Your task to perform on an android device: star an email in the gmail app Image 0: 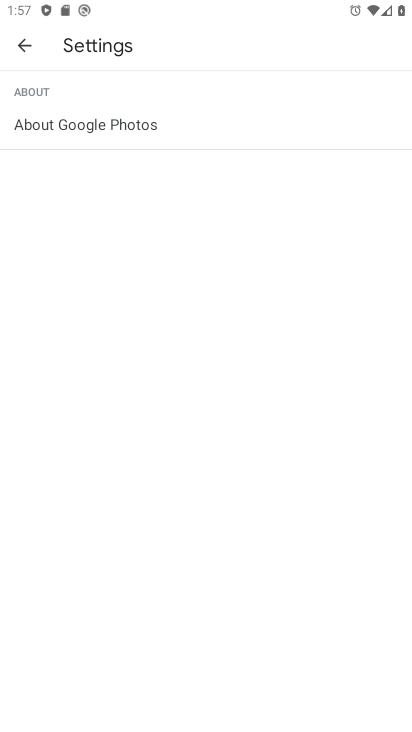
Step 0: press home button
Your task to perform on an android device: star an email in the gmail app Image 1: 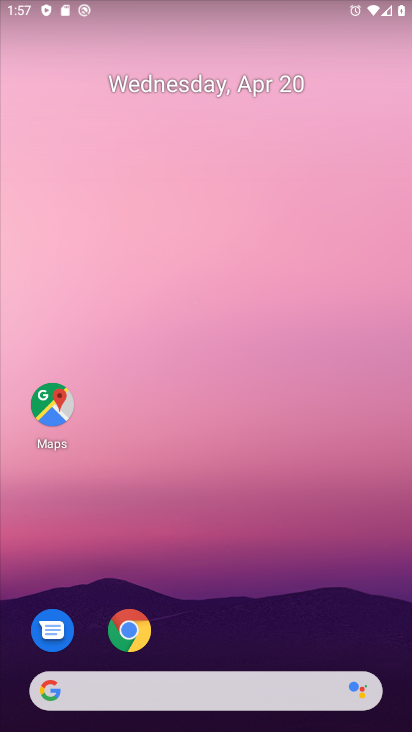
Step 1: drag from (244, 634) to (61, 126)
Your task to perform on an android device: star an email in the gmail app Image 2: 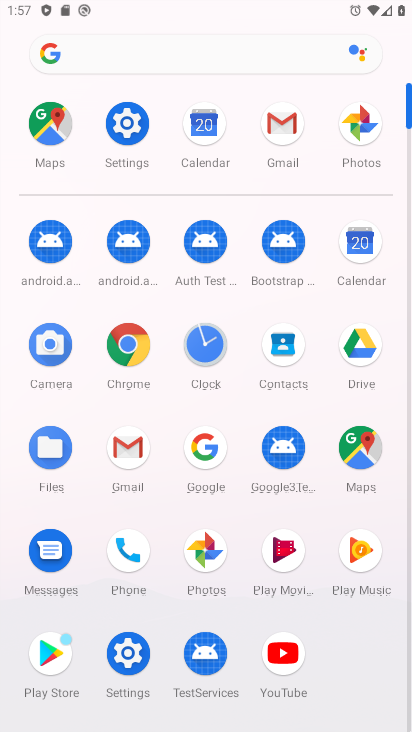
Step 2: click (122, 444)
Your task to perform on an android device: star an email in the gmail app Image 3: 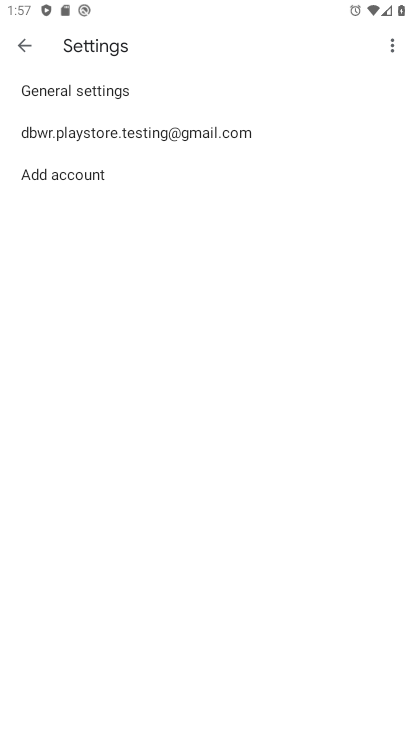
Step 3: click (20, 46)
Your task to perform on an android device: star an email in the gmail app Image 4: 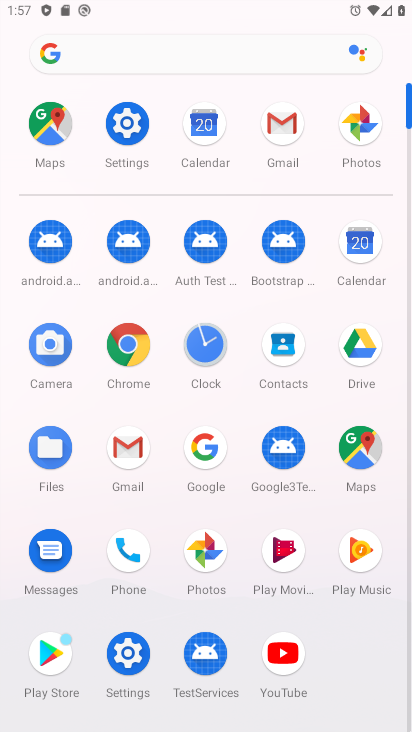
Step 4: click (132, 428)
Your task to perform on an android device: star an email in the gmail app Image 5: 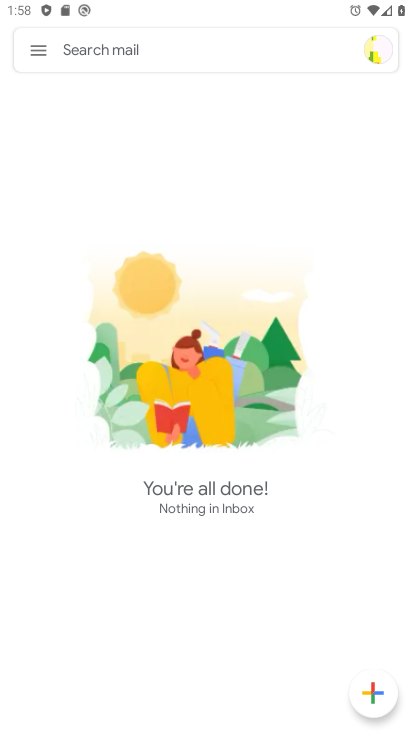
Step 5: click (36, 47)
Your task to perform on an android device: star an email in the gmail app Image 6: 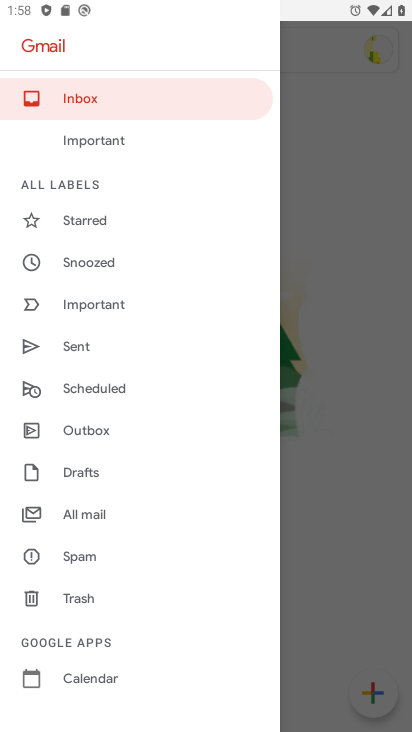
Step 6: click (77, 221)
Your task to perform on an android device: star an email in the gmail app Image 7: 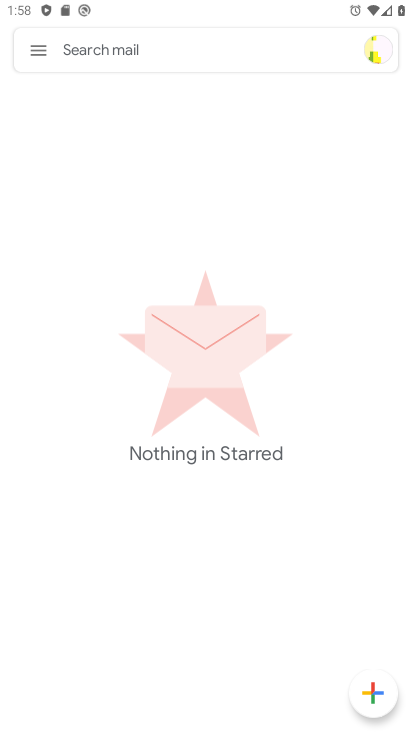
Step 7: click (35, 46)
Your task to perform on an android device: star an email in the gmail app Image 8: 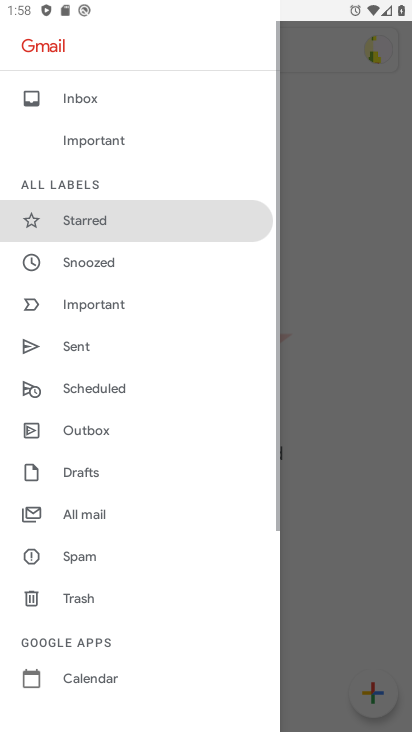
Step 8: click (83, 102)
Your task to perform on an android device: star an email in the gmail app Image 9: 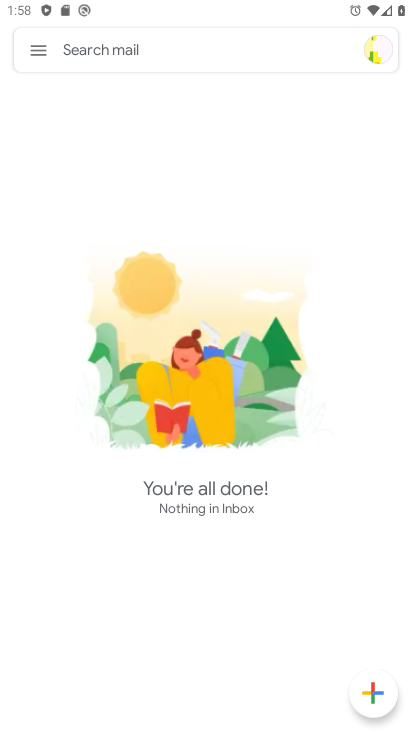
Step 9: task complete